Your task to perform on an android device: see tabs open on other devices in the chrome app Image 0: 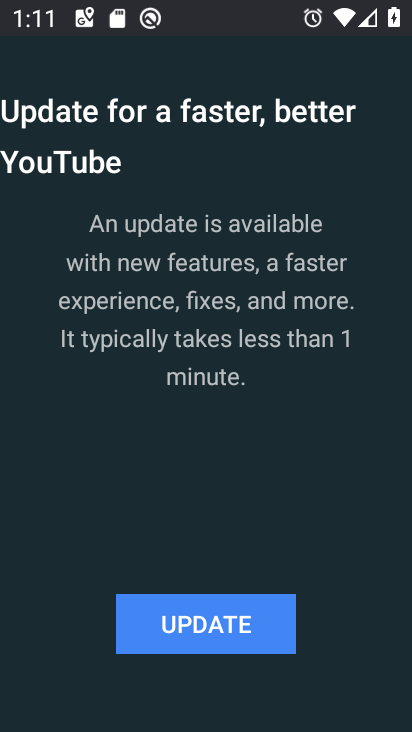
Step 0: press home button
Your task to perform on an android device: see tabs open on other devices in the chrome app Image 1: 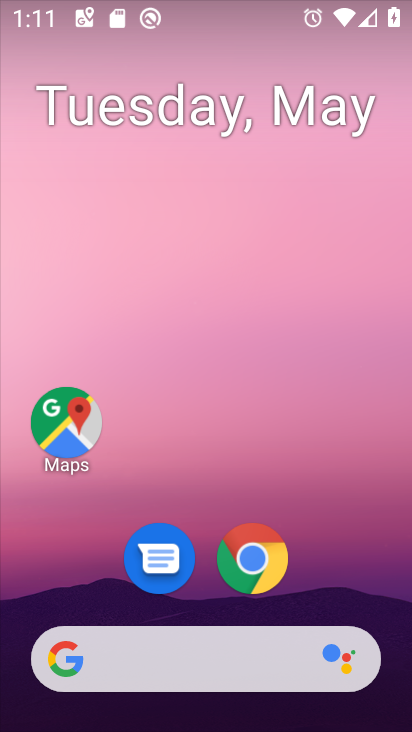
Step 1: drag from (377, 599) to (324, 247)
Your task to perform on an android device: see tabs open on other devices in the chrome app Image 2: 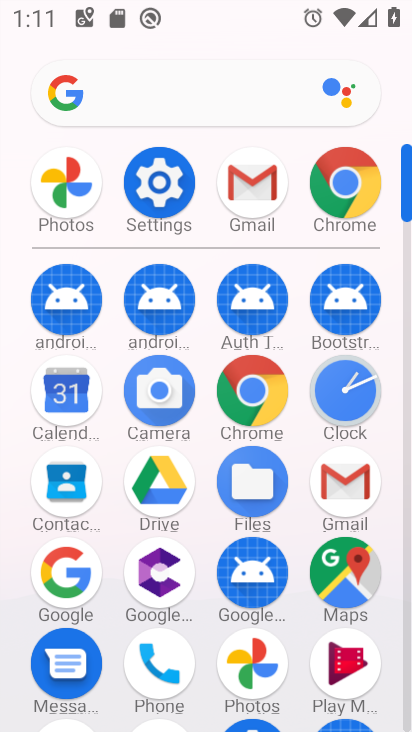
Step 2: click (353, 193)
Your task to perform on an android device: see tabs open on other devices in the chrome app Image 3: 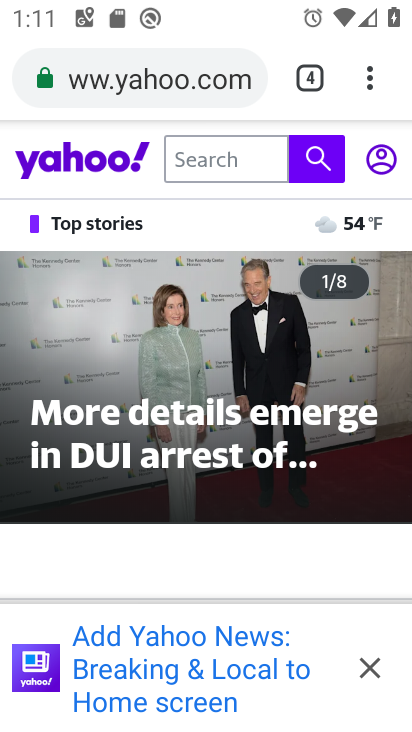
Step 3: click (369, 80)
Your task to perform on an android device: see tabs open on other devices in the chrome app Image 4: 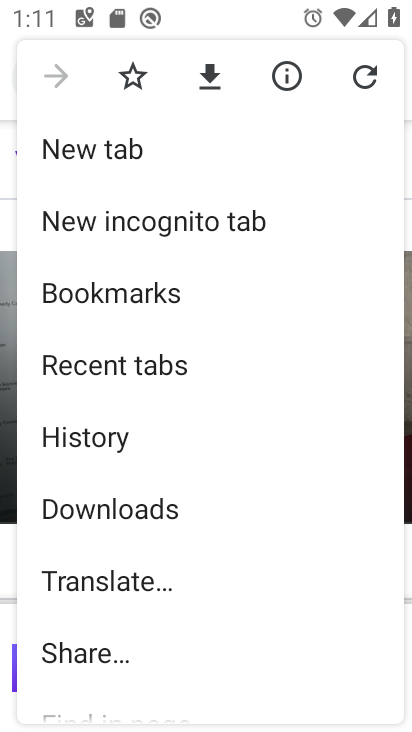
Step 4: click (176, 376)
Your task to perform on an android device: see tabs open on other devices in the chrome app Image 5: 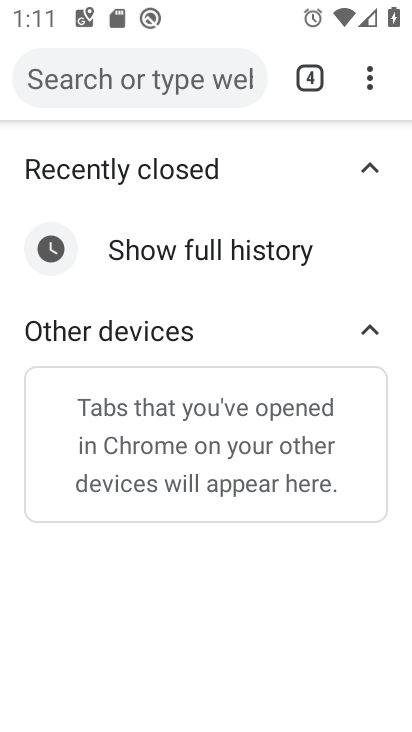
Step 5: task complete